Your task to perform on an android device: Go to location settings Image 0: 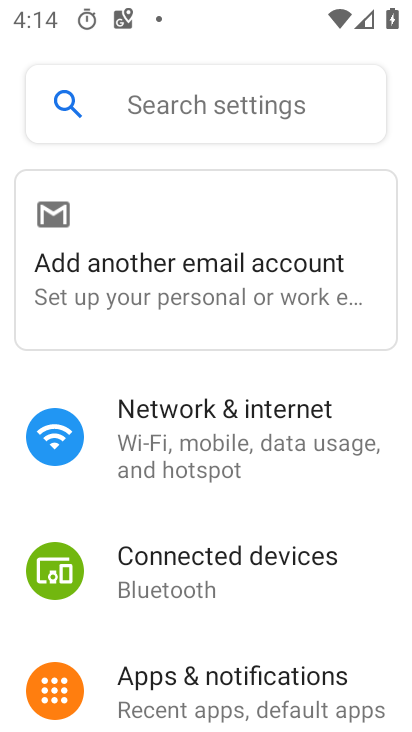
Step 0: drag from (192, 649) to (190, 576)
Your task to perform on an android device: Go to location settings Image 1: 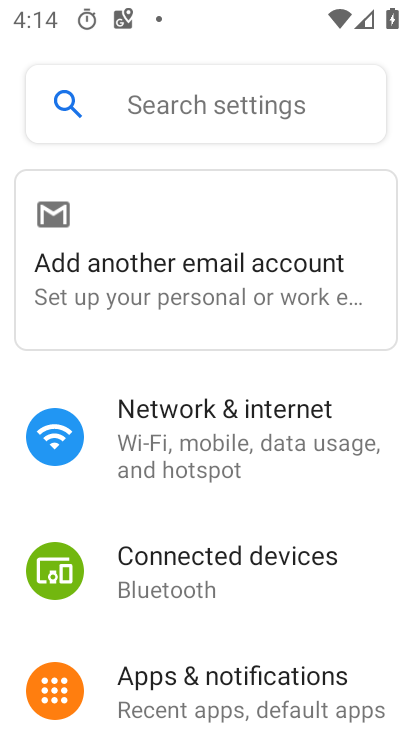
Step 1: click (188, 246)
Your task to perform on an android device: Go to location settings Image 2: 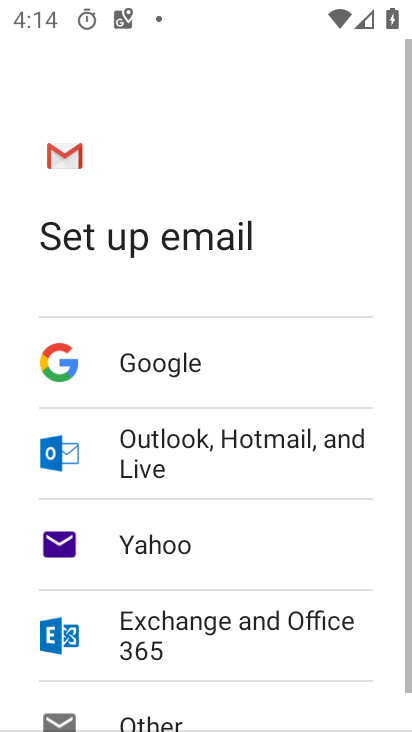
Step 2: press home button
Your task to perform on an android device: Go to location settings Image 3: 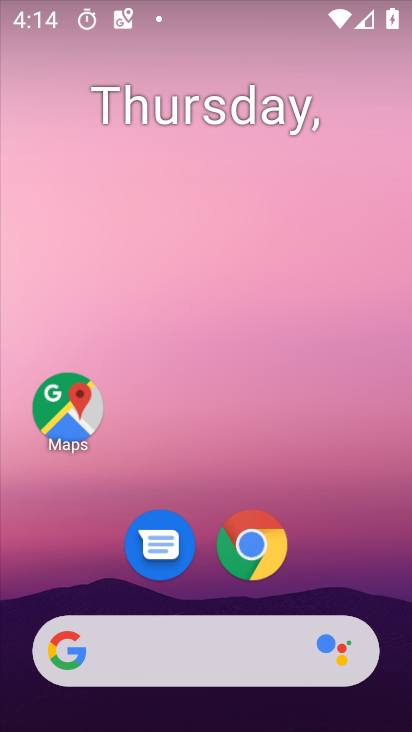
Step 3: drag from (218, 719) to (221, 153)
Your task to perform on an android device: Go to location settings Image 4: 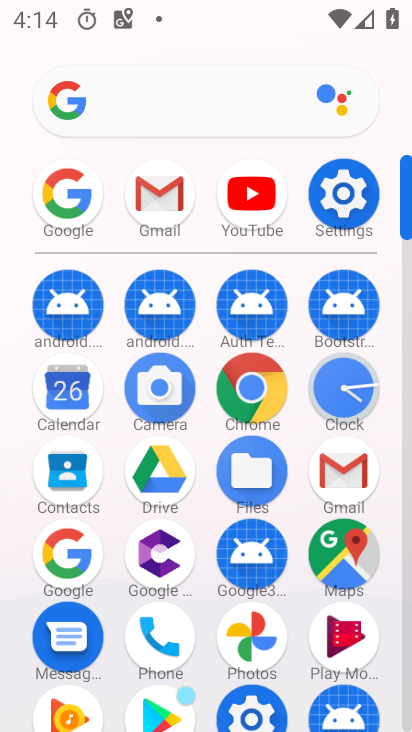
Step 4: click (337, 204)
Your task to perform on an android device: Go to location settings Image 5: 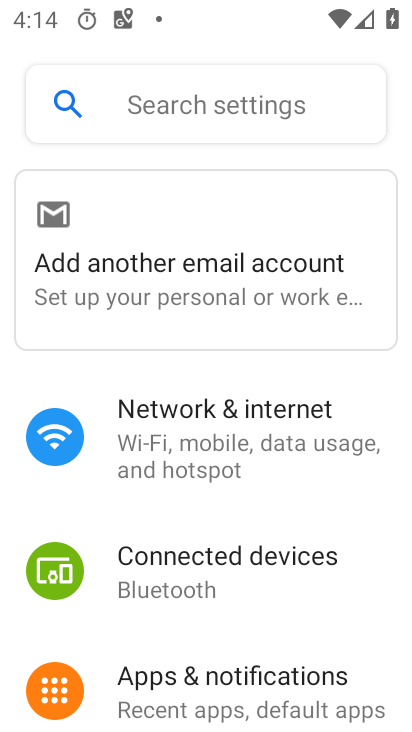
Step 5: drag from (165, 683) to (182, 368)
Your task to perform on an android device: Go to location settings Image 6: 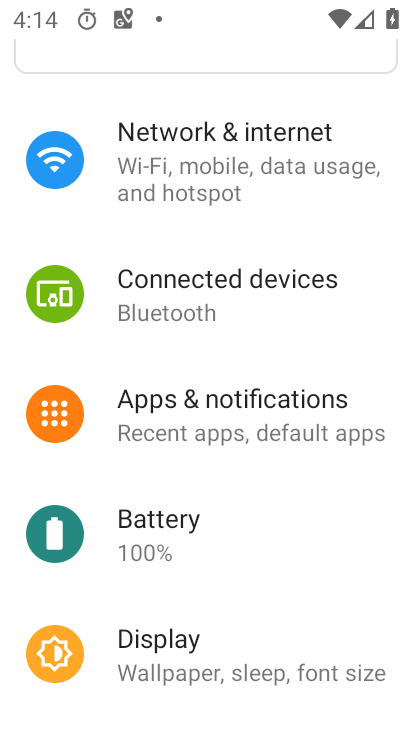
Step 6: drag from (190, 695) to (191, 454)
Your task to perform on an android device: Go to location settings Image 7: 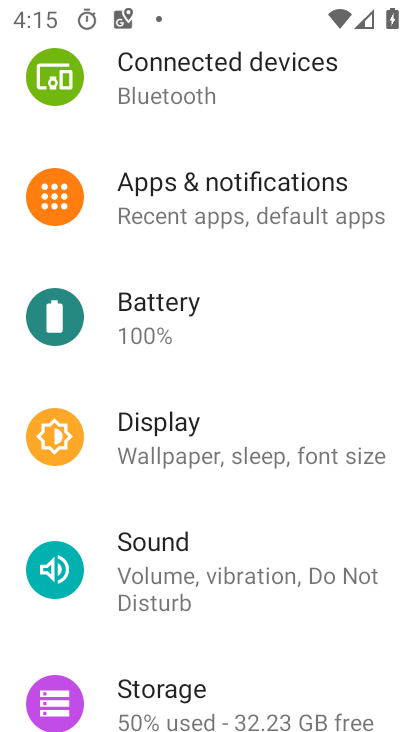
Step 7: drag from (196, 671) to (200, 276)
Your task to perform on an android device: Go to location settings Image 8: 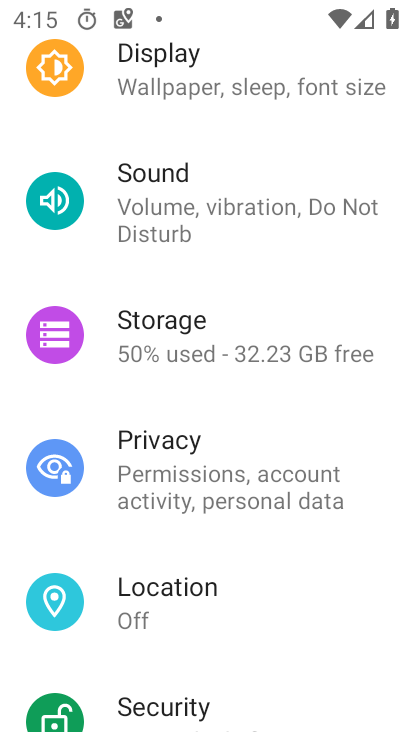
Step 8: click (159, 591)
Your task to perform on an android device: Go to location settings Image 9: 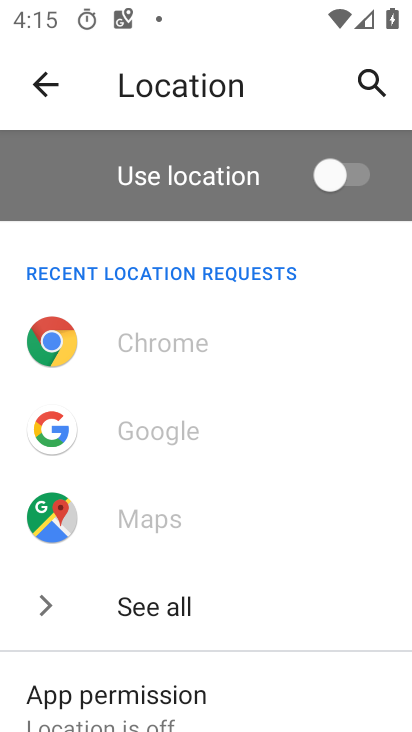
Step 9: task complete